Your task to perform on an android device: Search for usb-a on amazon, select the first entry, add it to the cart, then select checkout. Image 0: 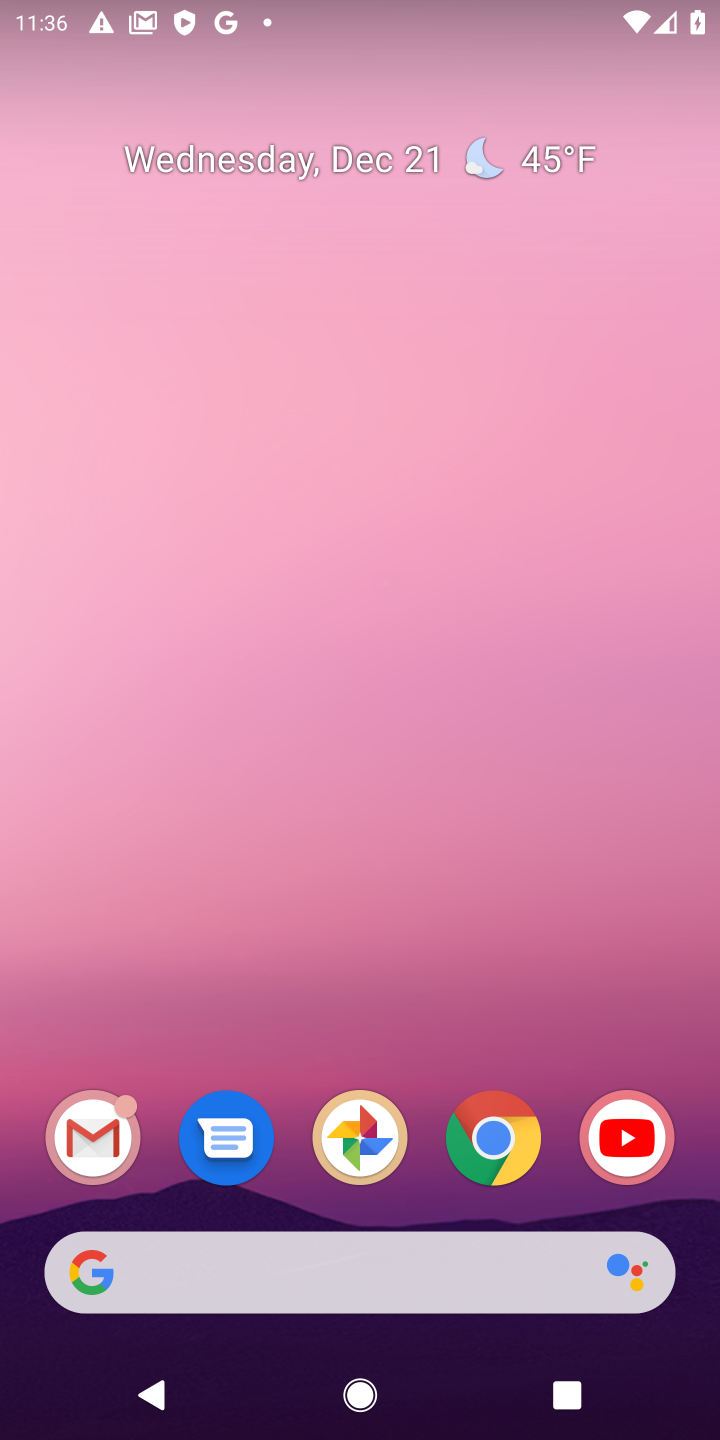
Step 0: click (499, 1138)
Your task to perform on an android device: Search for usb-a on amazon, select the first entry, add it to the cart, then select checkout. Image 1: 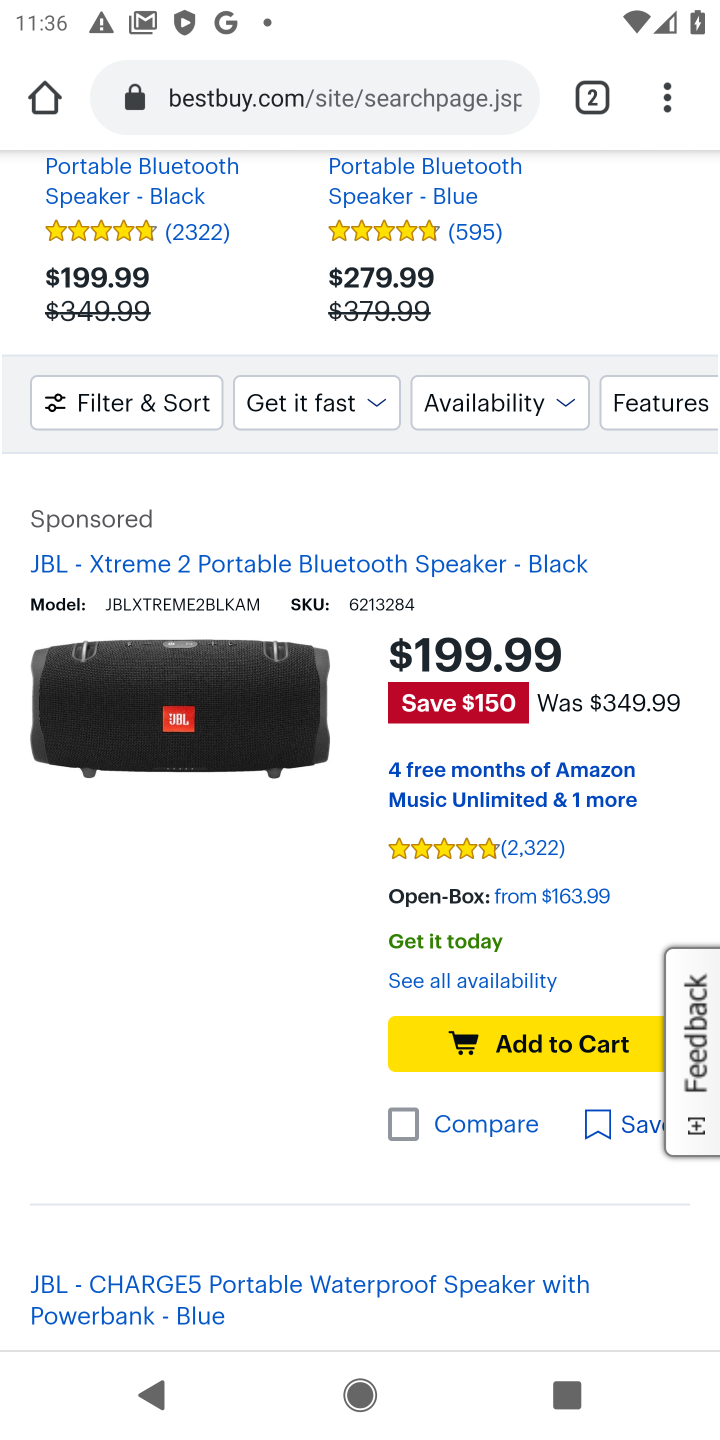
Step 1: click (287, 98)
Your task to perform on an android device: Search for usb-a on amazon, select the first entry, add it to the cart, then select checkout. Image 2: 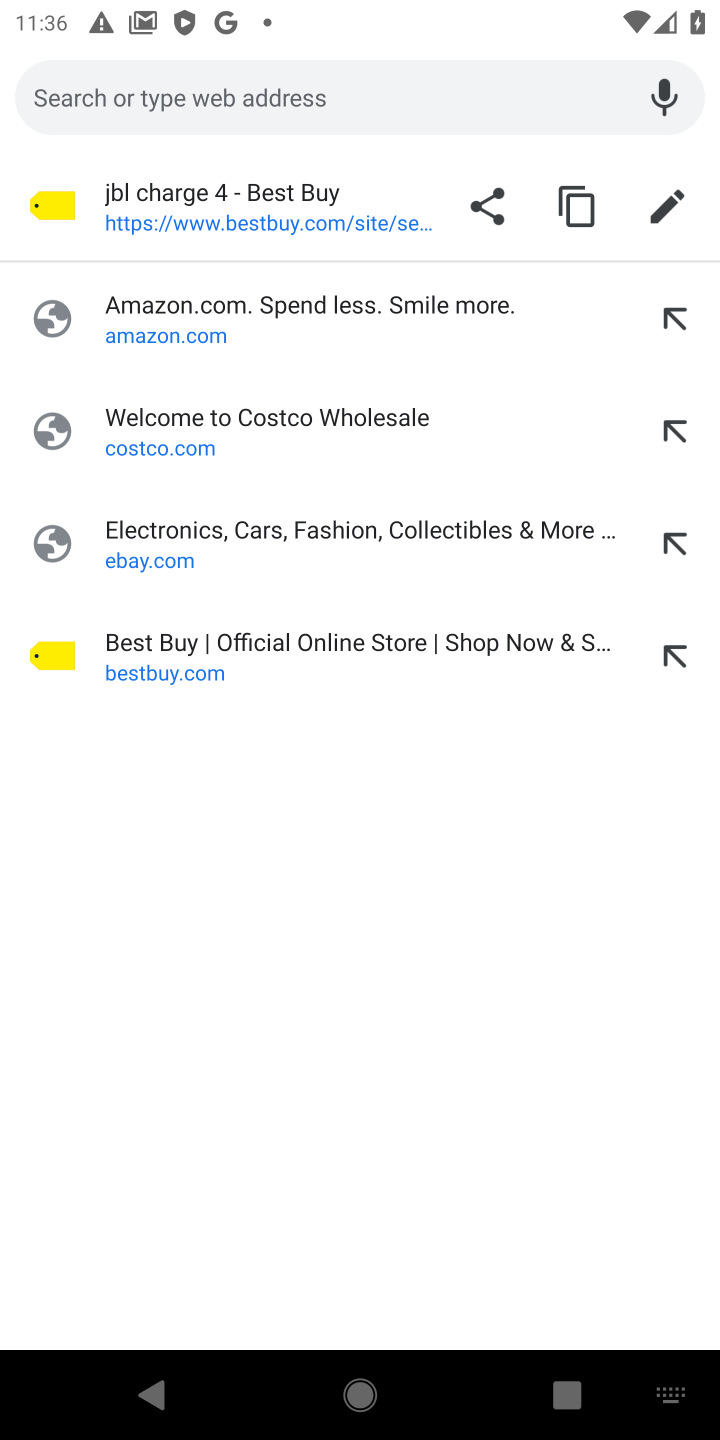
Step 2: click (131, 328)
Your task to perform on an android device: Search for usb-a on amazon, select the first entry, add it to the cart, then select checkout. Image 3: 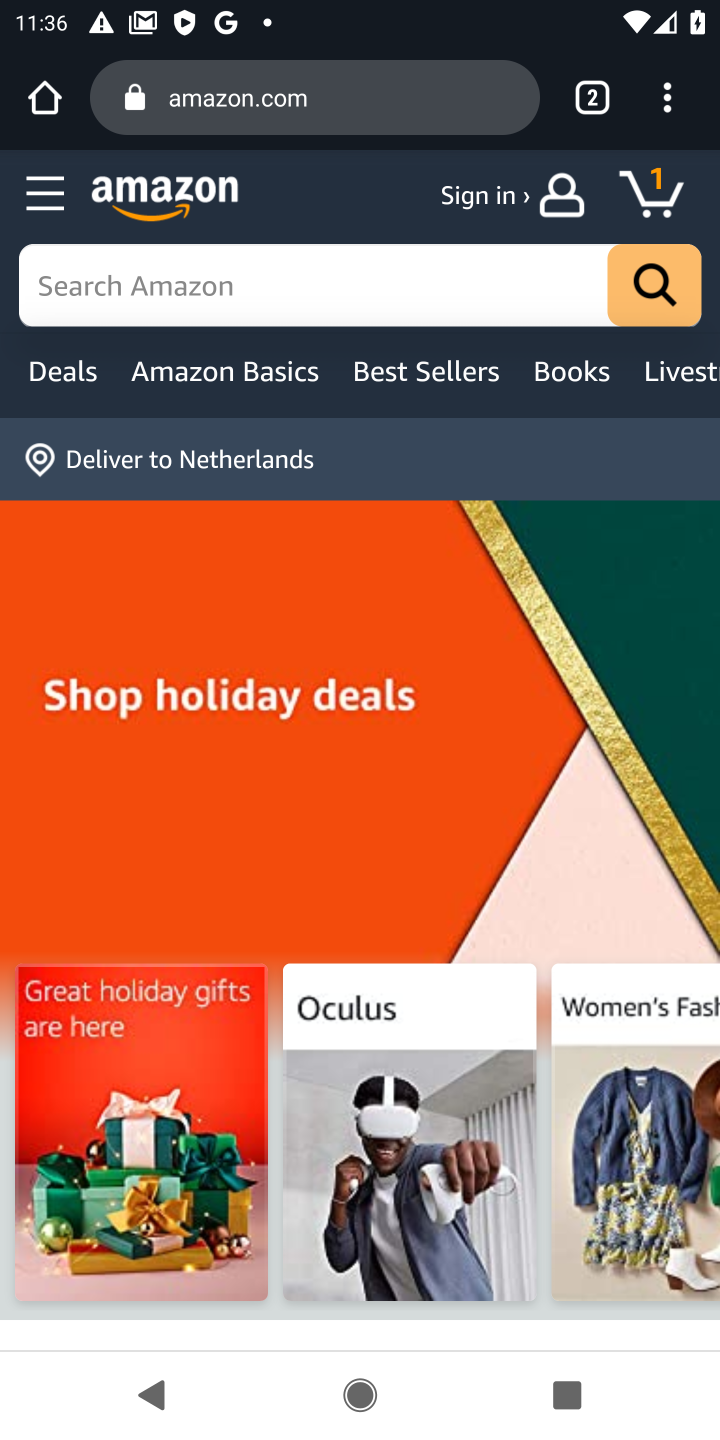
Step 3: click (142, 296)
Your task to perform on an android device: Search for usb-a on amazon, select the first entry, add it to the cart, then select checkout. Image 4: 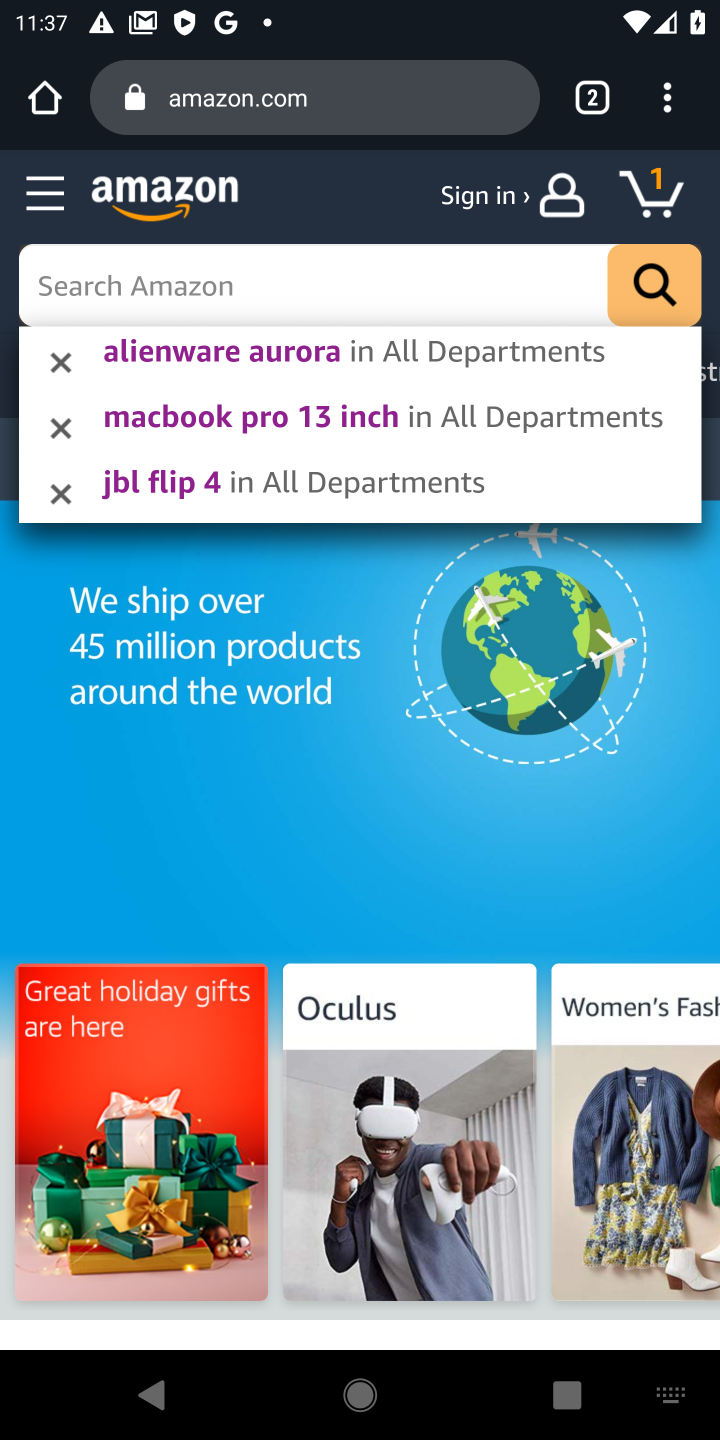
Step 4: type "usb-a"
Your task to perform on an android device: Search for usb-a on amazon, select the first entry, add it to the cart, then select checkout. Image 5: 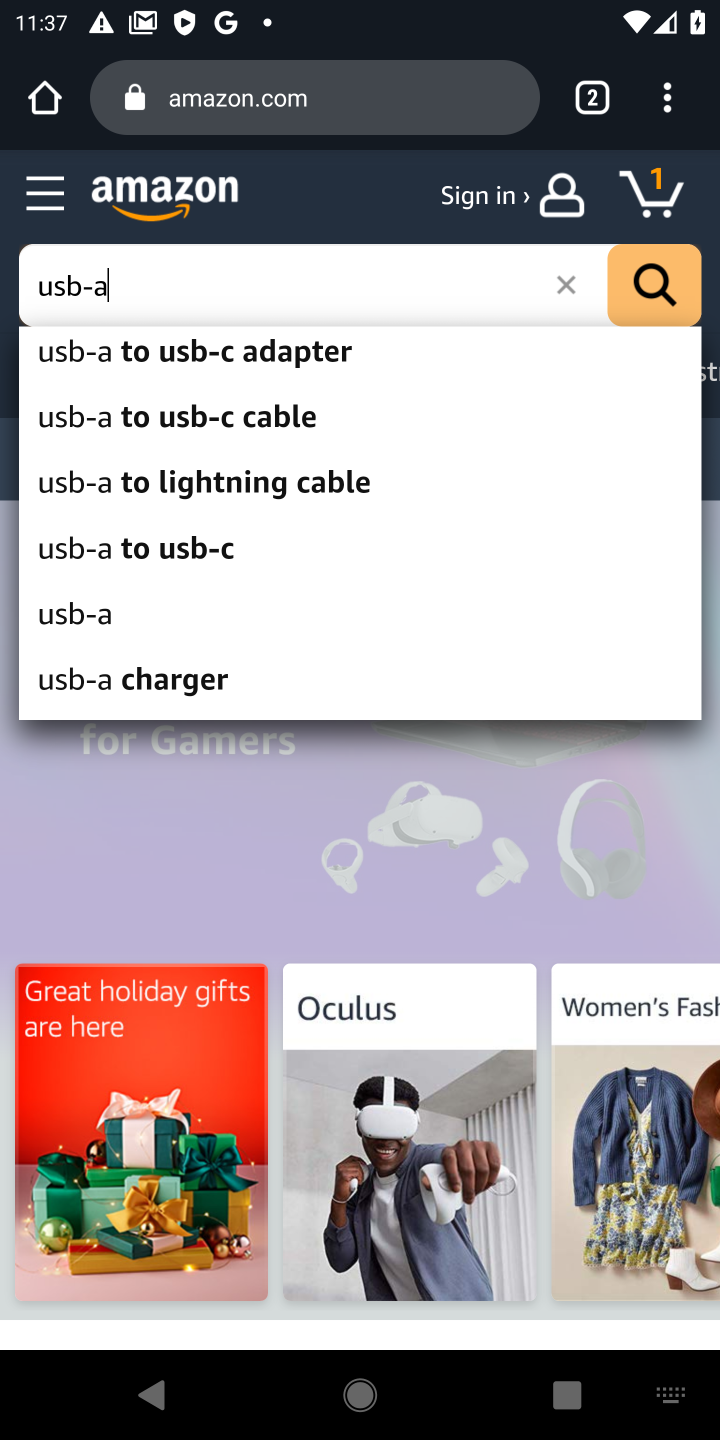
Step 5: click (97, 606)
Your task to perform on an android device: Search for usb-a on amazon, select the first entry, add it to the cart, then select checkout. Image 6: 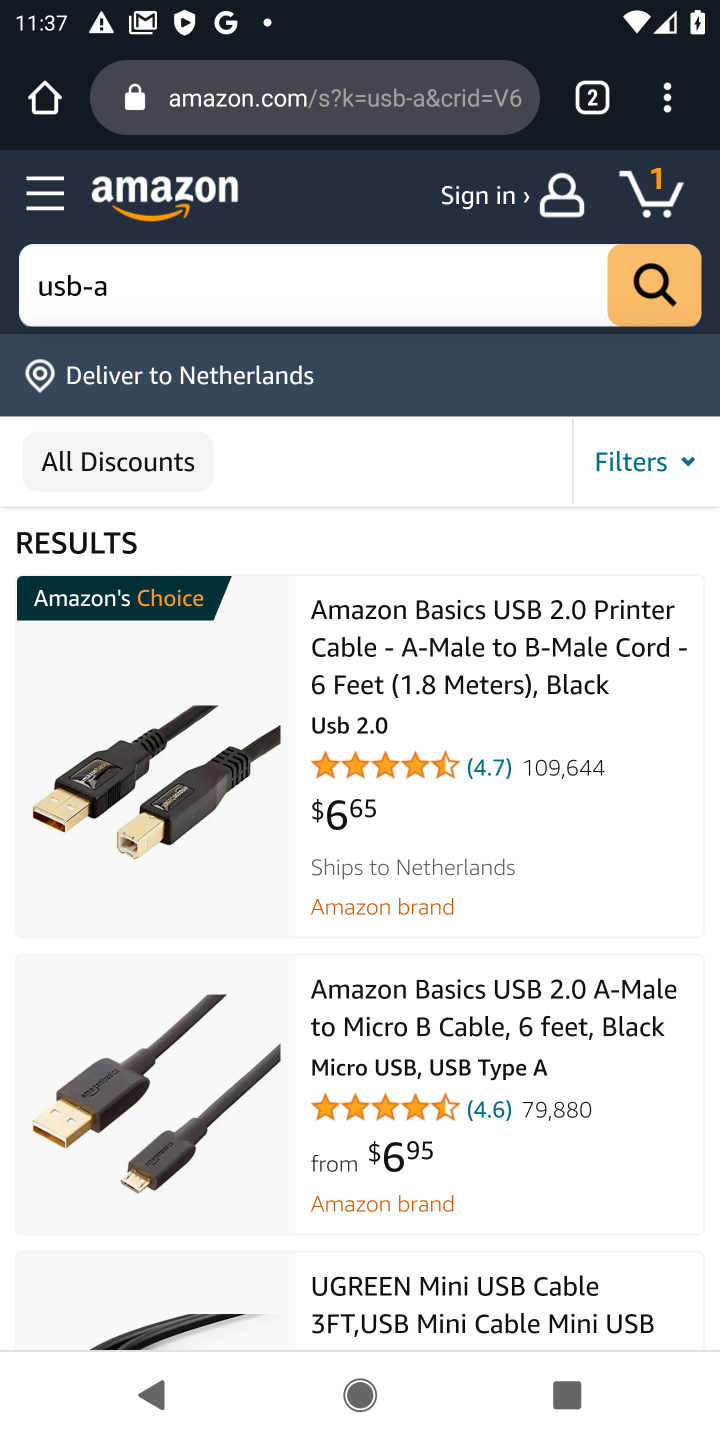
Step 6: task complete